Your task to perform on an android device: Open internet settings Image 0: 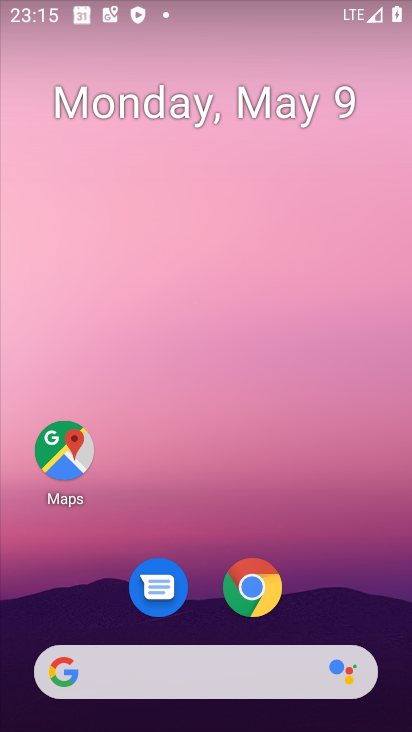
Step 0: drag from (204, 614) to (177, 96)
Your task to perform on an android device: Open internet settings Image 1: 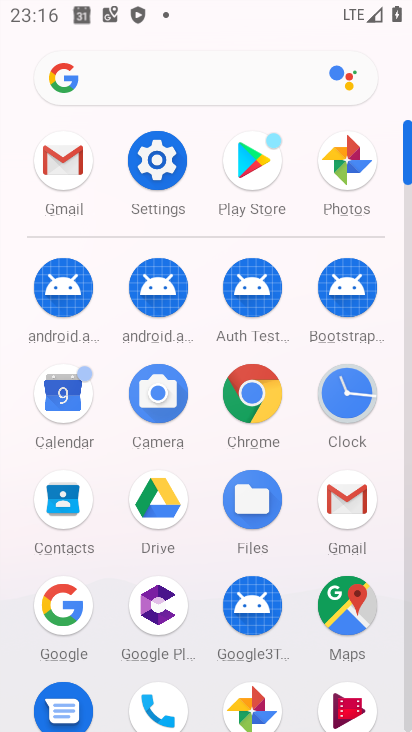
Step 1: click (168, 201)
Your task to perform on an android device: Open internet settings Image 2: 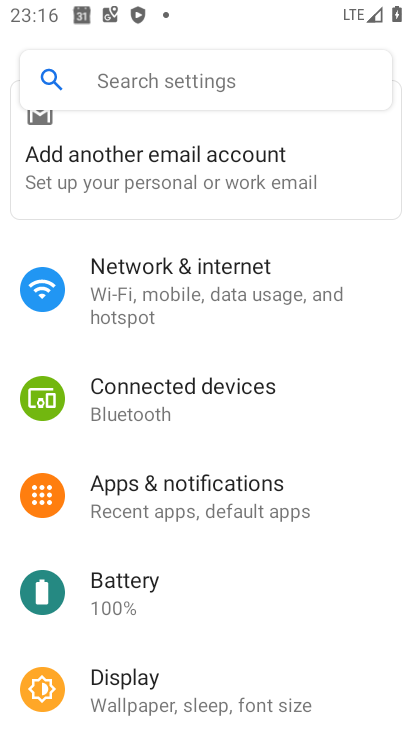
Step 2: click (182, 290)
Your task to perform on an android device: Open internet settings Image 3: 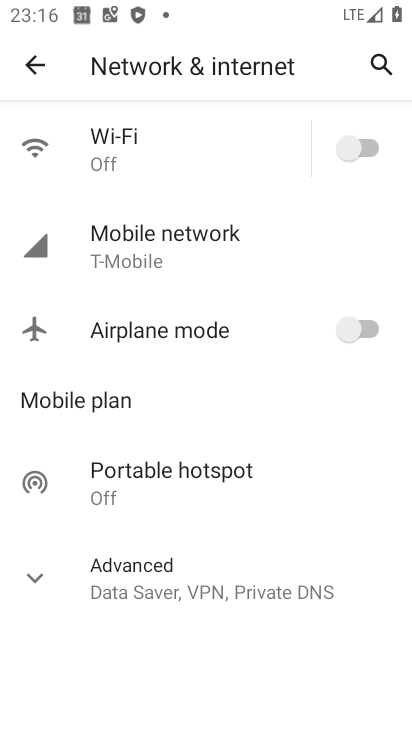
Step 3: click (182, 290)
Your task to perform on an android device: Open internet settings Image 4: 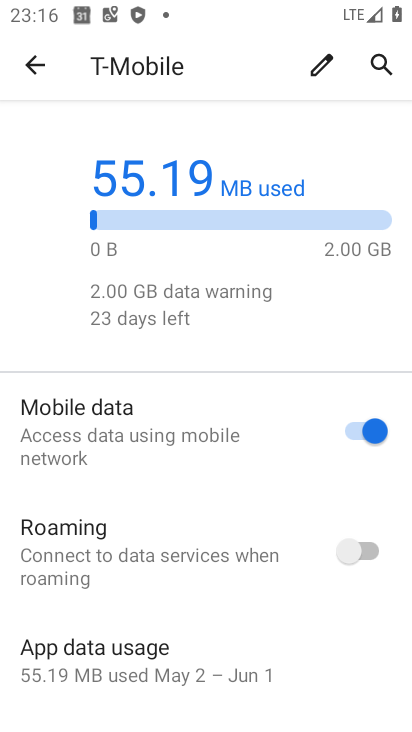
Step 4: task complete